Your task to perform on an android device: Open the calendar and show me this week's events Image 0: 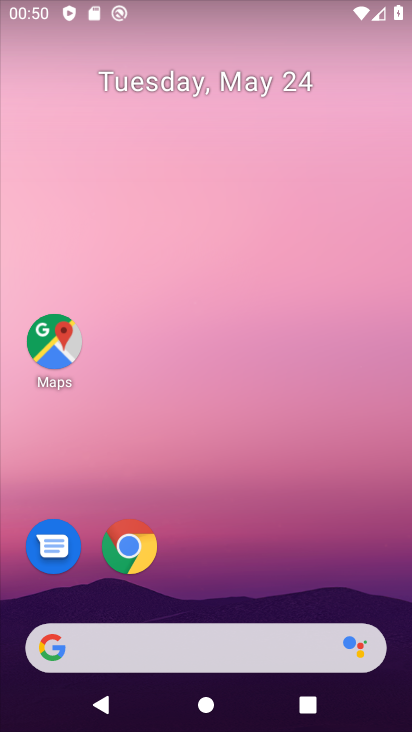
Step 0: drag from (365, 657) to (372, 62)
Your task to perform on an android device: Open the calendar and show me this week's events Image 1: 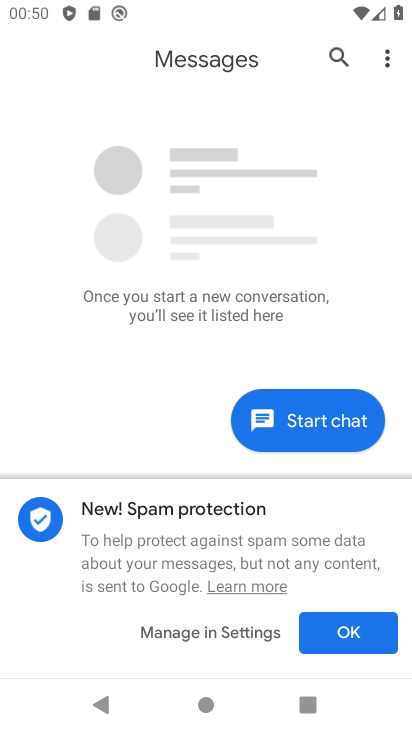
Step 1: press home button
Your task to perform on an android device: Open the calendar and show me this week's events Image 2: 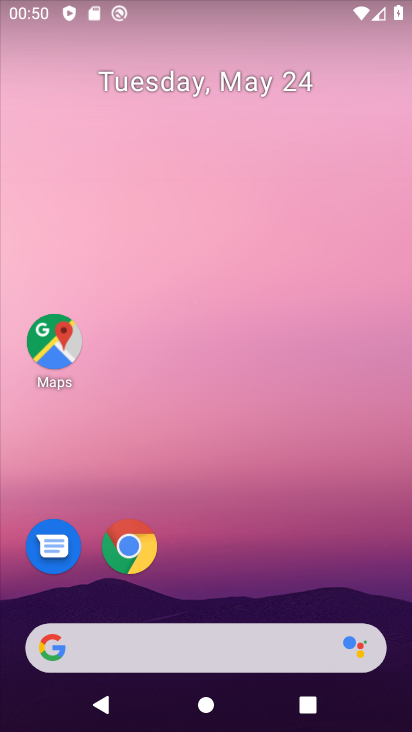
Step 2: drag from (252, 643) to (293, 155)
Your task to perform on an android device: Open the calendar and show me this week's events Image 3: 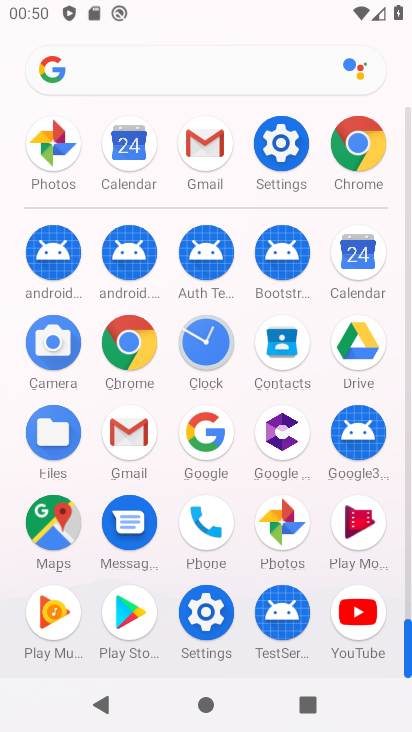
Step 3: click (359, 262)
Your task to perform on an android device: Open the calendar and show me this week's events Image 4: 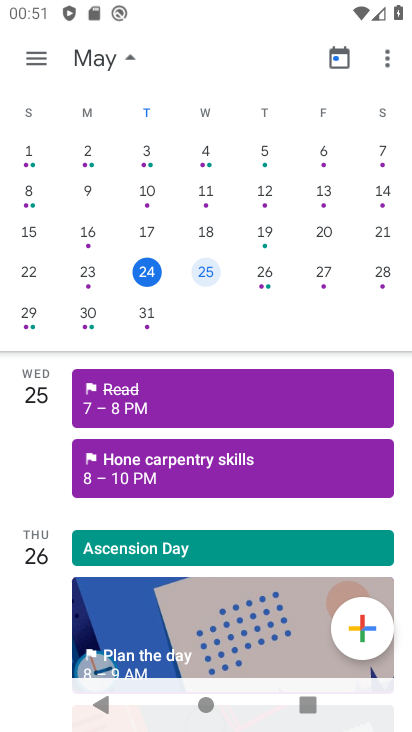
Step 4: click (128, 56)
Your task to perform on an android device: Open the calendar and show me this week's events Image 5: 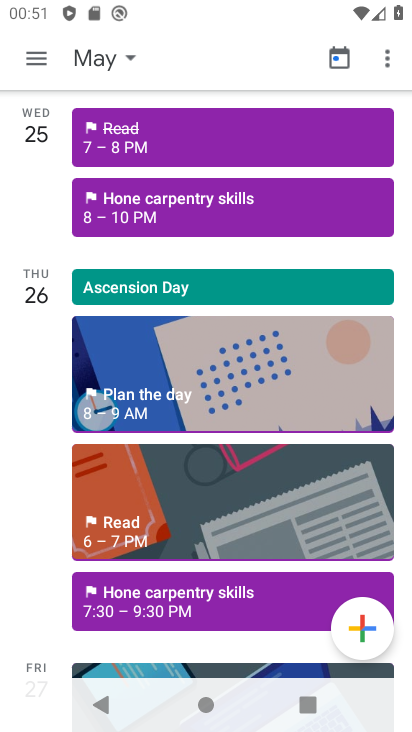
Step 5: task complete